Your task to perform on an android device: turn on the 24-hour format for clock Image 0: 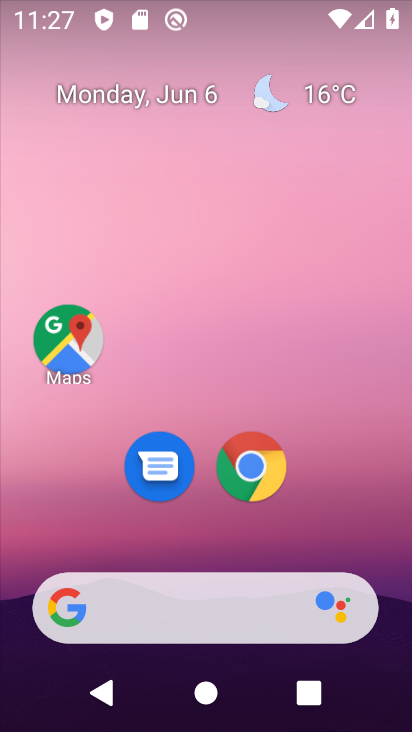
Step 0: drag from (311, 539) to (199, 10)
Your task to perform on an android device: turn on the 24-hour format for clock Image 1: 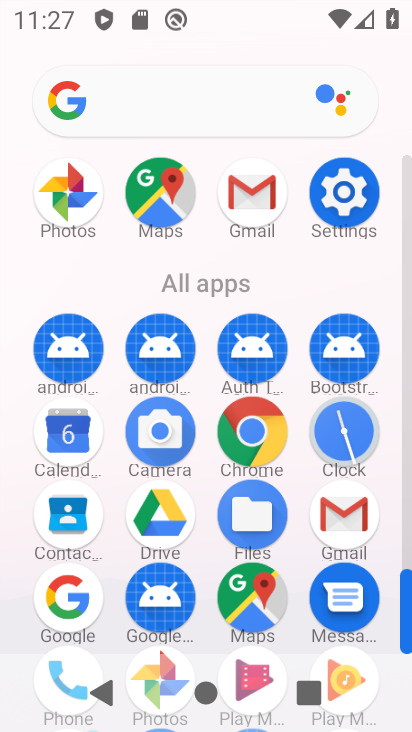
Step 1: click (339, 452)
Your task to perform on an android device: turn on the 24-hour format for clock Image 2: 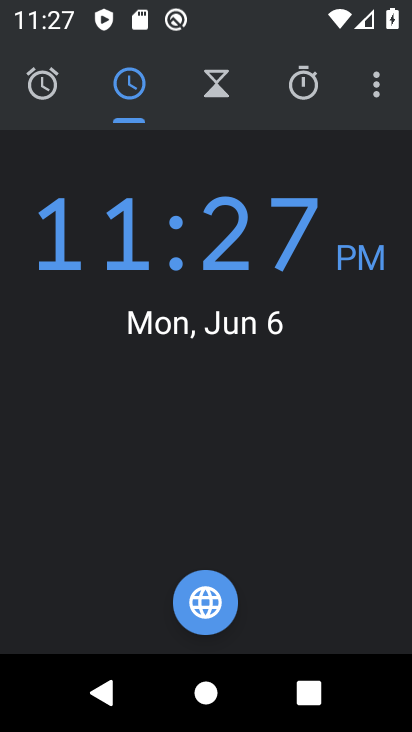
Step 2: click (388, 88)
Your task to perform on an android device: turn on the 24-hour format for clock Image 3: 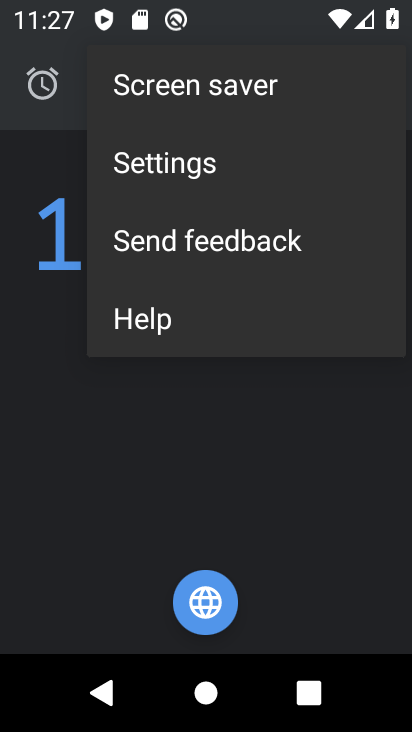
Step 3: click (180, 163)
Your task to perform on an android device: turn on the 24-hour format for clock Image 4: 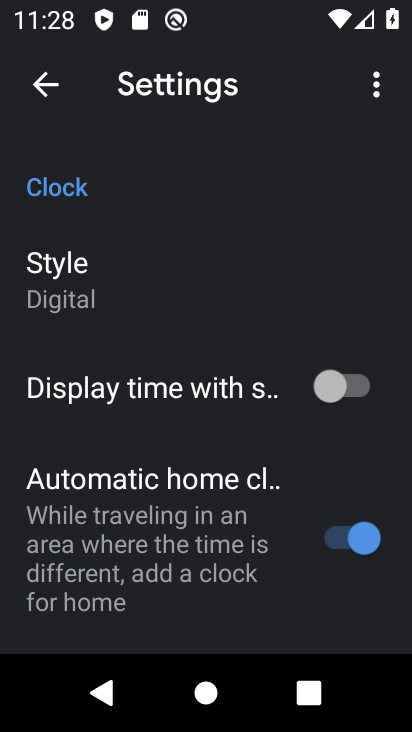
Step 4: drag from (180, 541) to (232, 312)
Your task to perform on an android device: turn on the 24-hour format for clock Image 5: 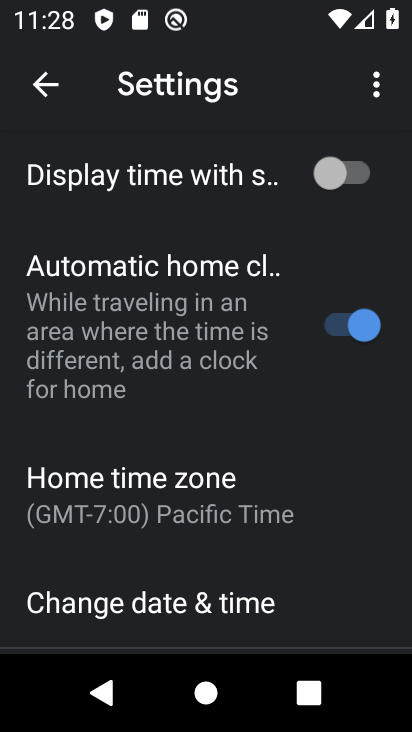
Step 5: click (205, 609)
Your task to perform on an android device: turn on the 24-hour format for clock Image 6: 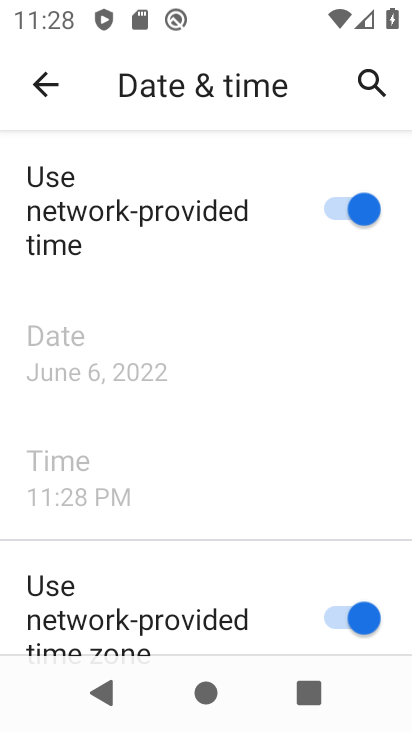
Step 6: drag from (161, 628) to (167, 156)
Your task to perform on an android device: turn on the 24-hour format for clock Image 7: 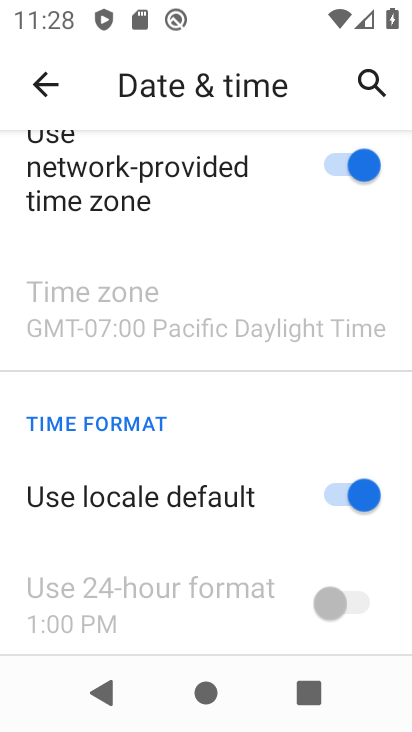
Step 7: click (344, 484)
Your task to perform on an android device: turn on the 24-hour format for clock Image 8: 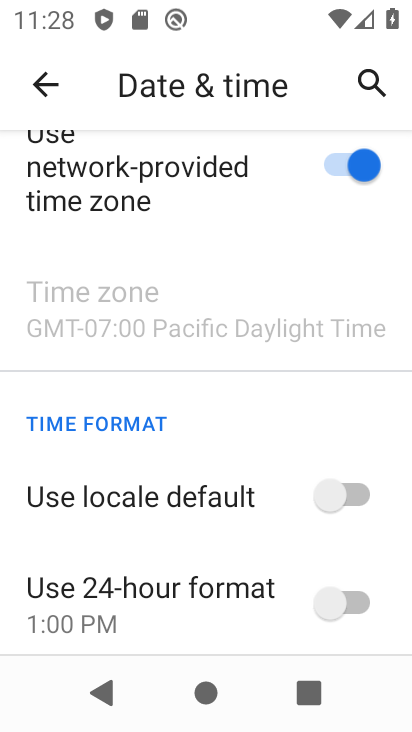
Step 8: click (339, 614)
Your task to perform on an android device: turn on the 24-hour format for clock Image 9: 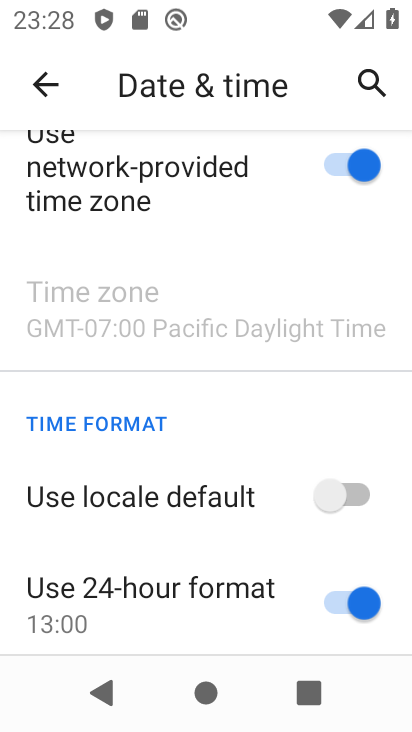
Step 9: task complete